Your task to perform on an android device: Search for flights from Boston to Zurich Image 0: 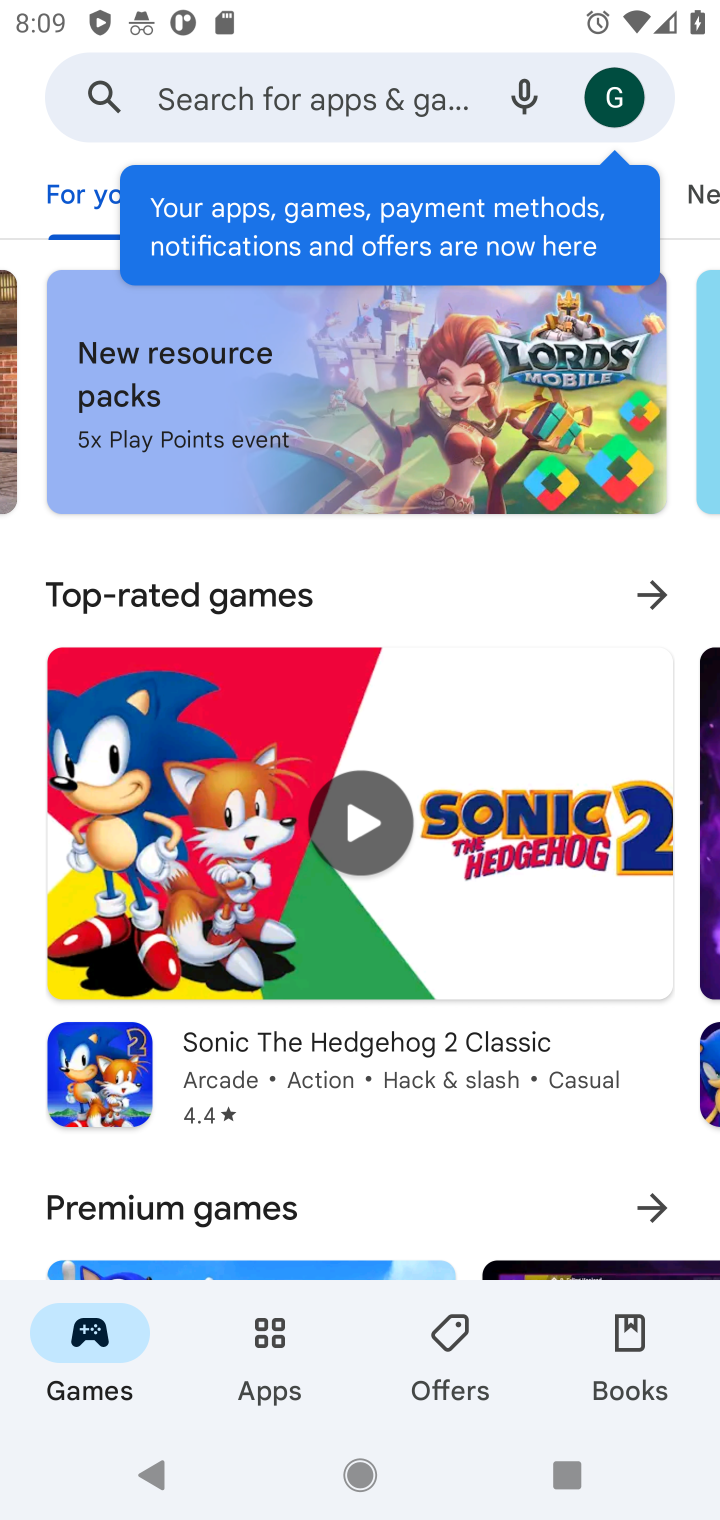
Step 0: press home button
Your task to perform on an android device: Search for flights from Boston to Zurich Image 1: 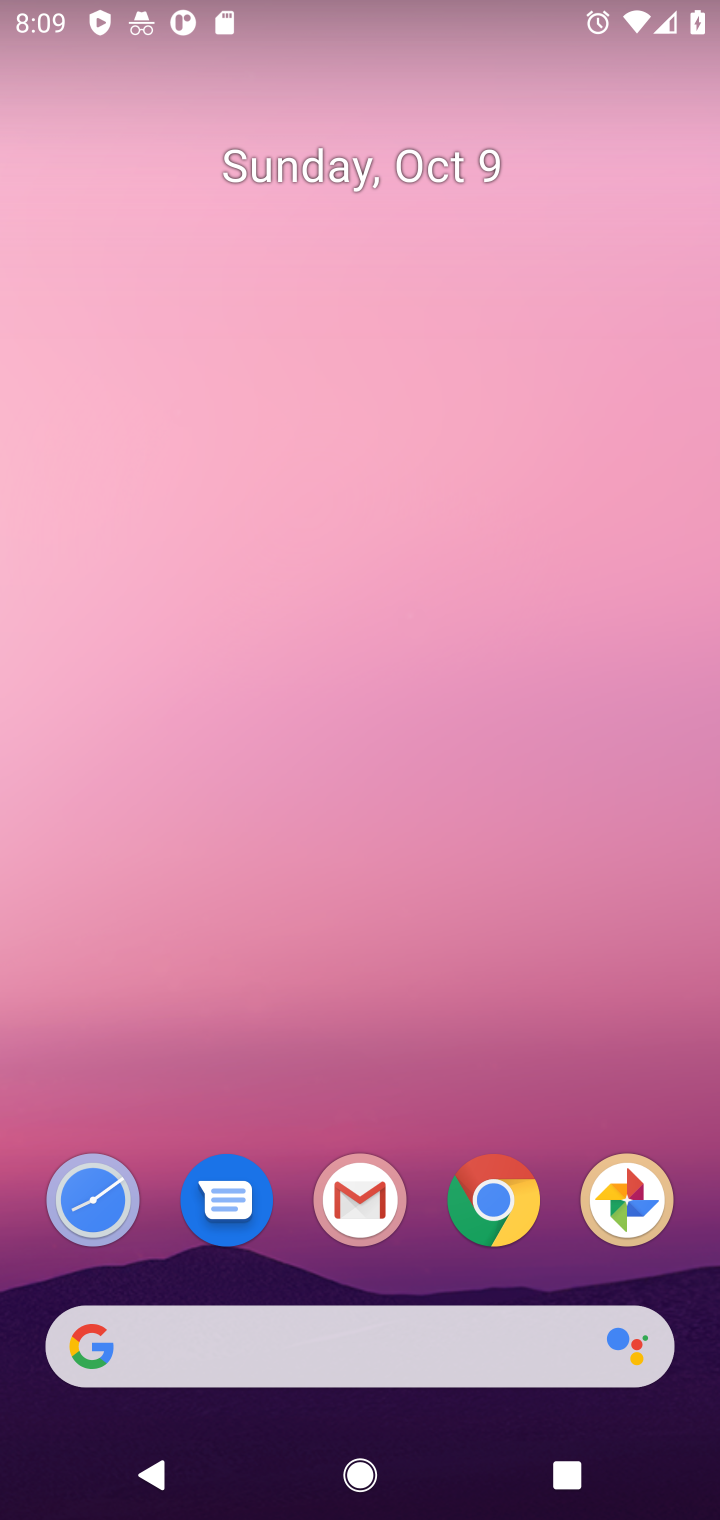
Step 1: click (482, 1205)
Your task to perform on an android device: Search for flights from Boston to Zurich Image 2: 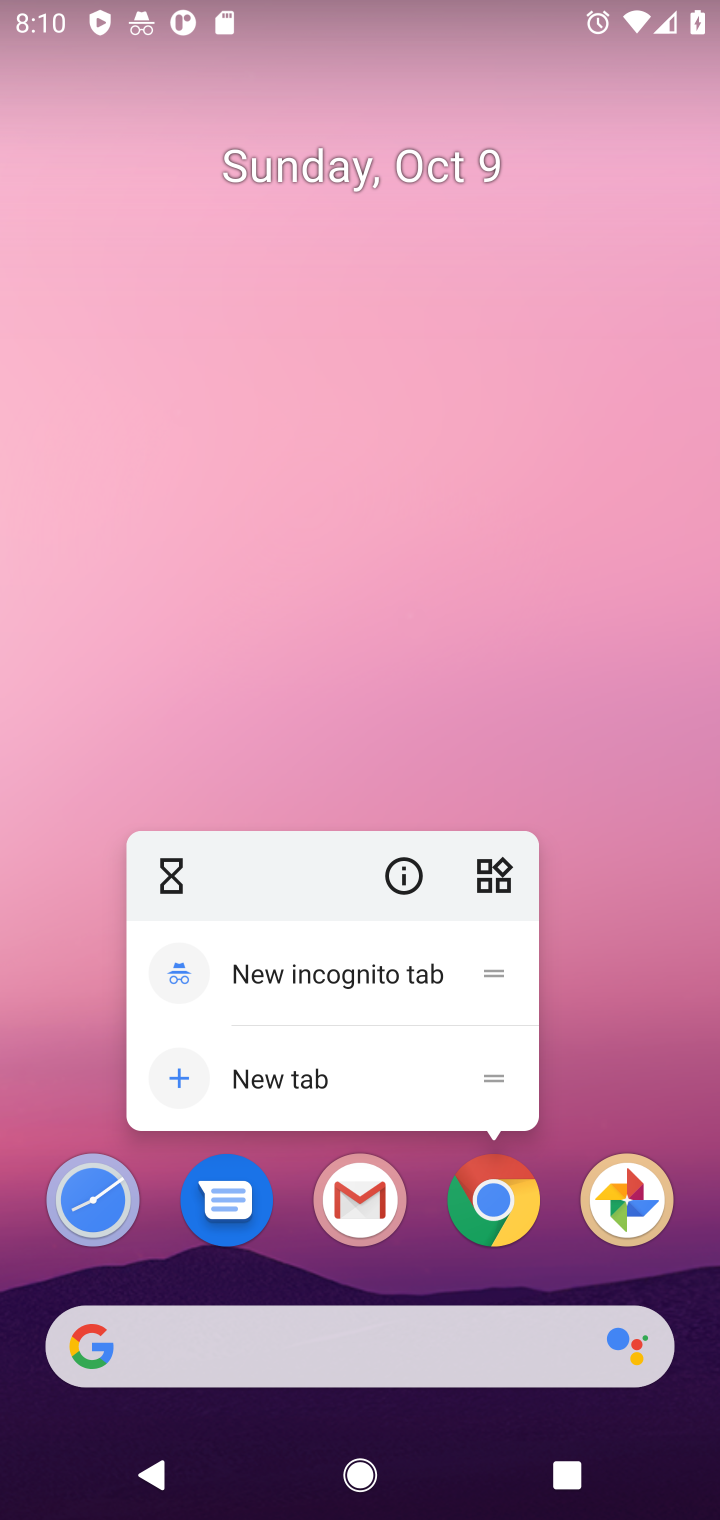
Step 2: click (500, 1209)
Your task to perform on an android device: Search for flights from Boston to Zurich Image 3: 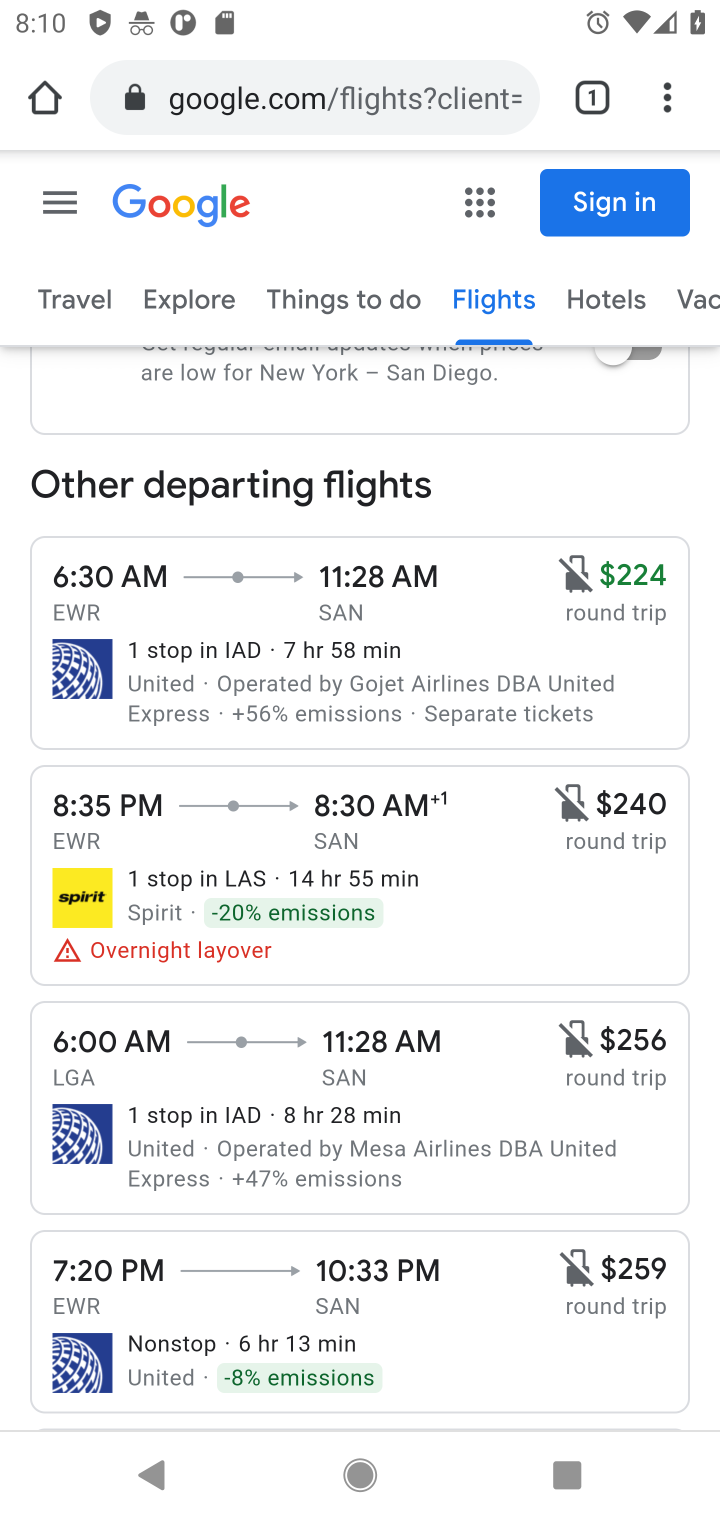
Step 3: click (354, 98)
Your task to perform on an android device: Search for flights from Boston to Zurich Image 4: 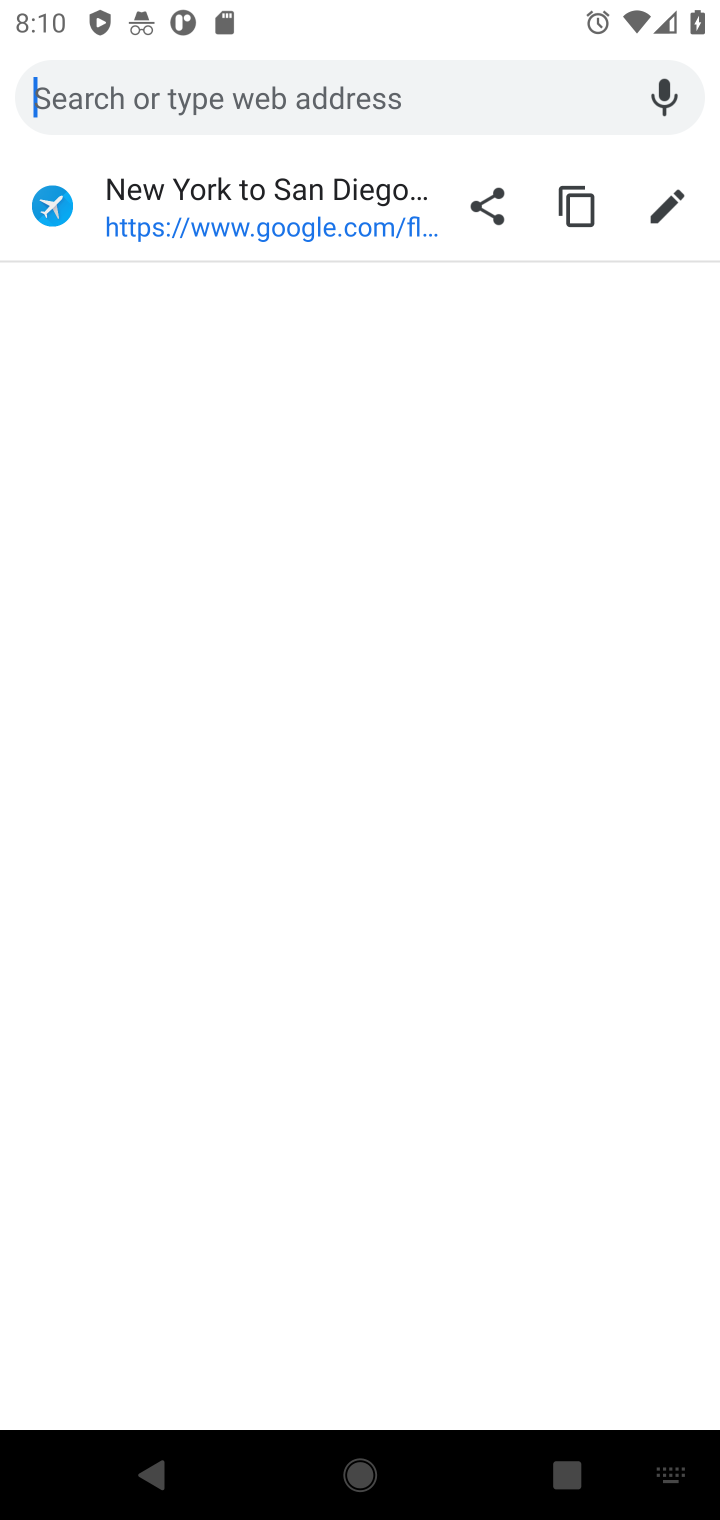
Step 4: type "flights from Boston to Zurich"
Your task to perform on an android device: Search for flights from Boston to Zurich Image 5: 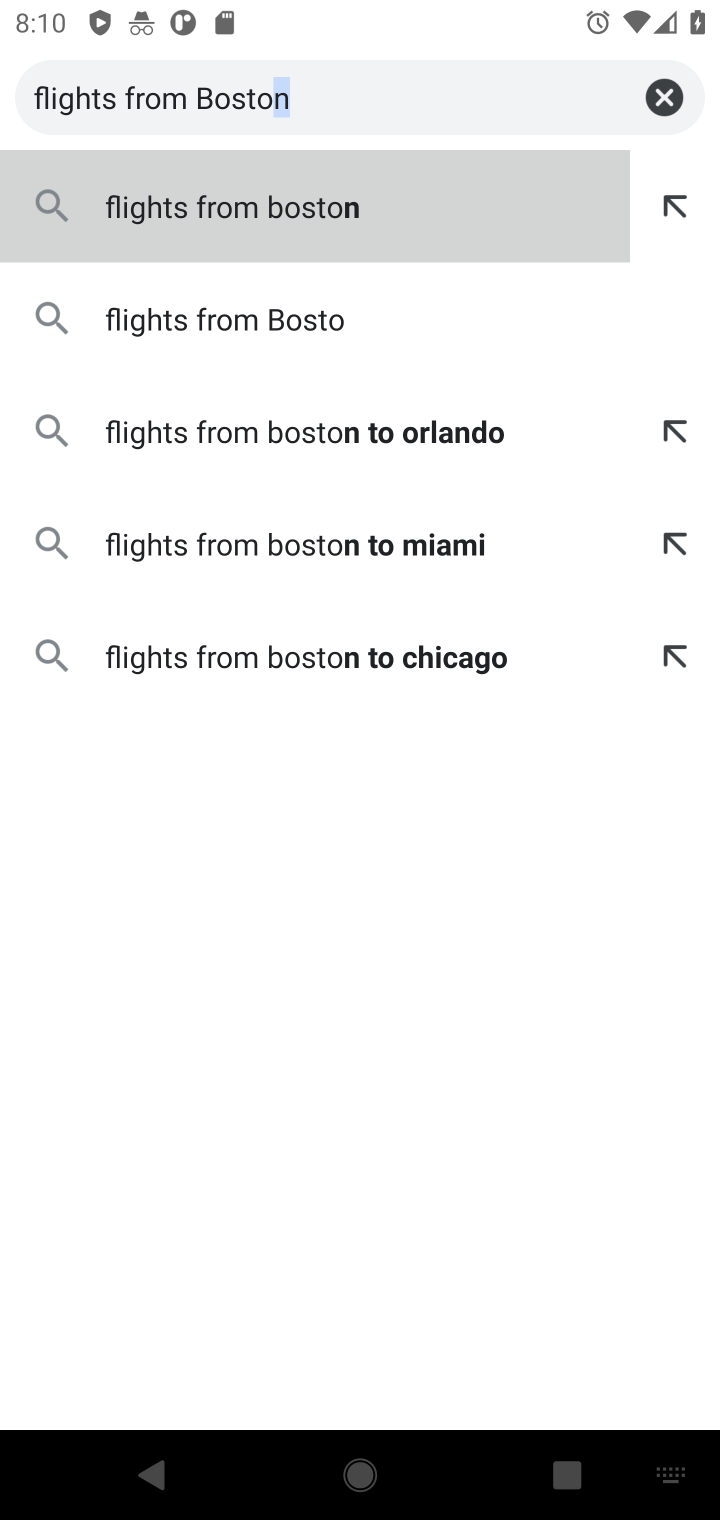
Step 5: type ""
Your task to perform on an android device: Search for flights from Boston to Zurich Image 6: 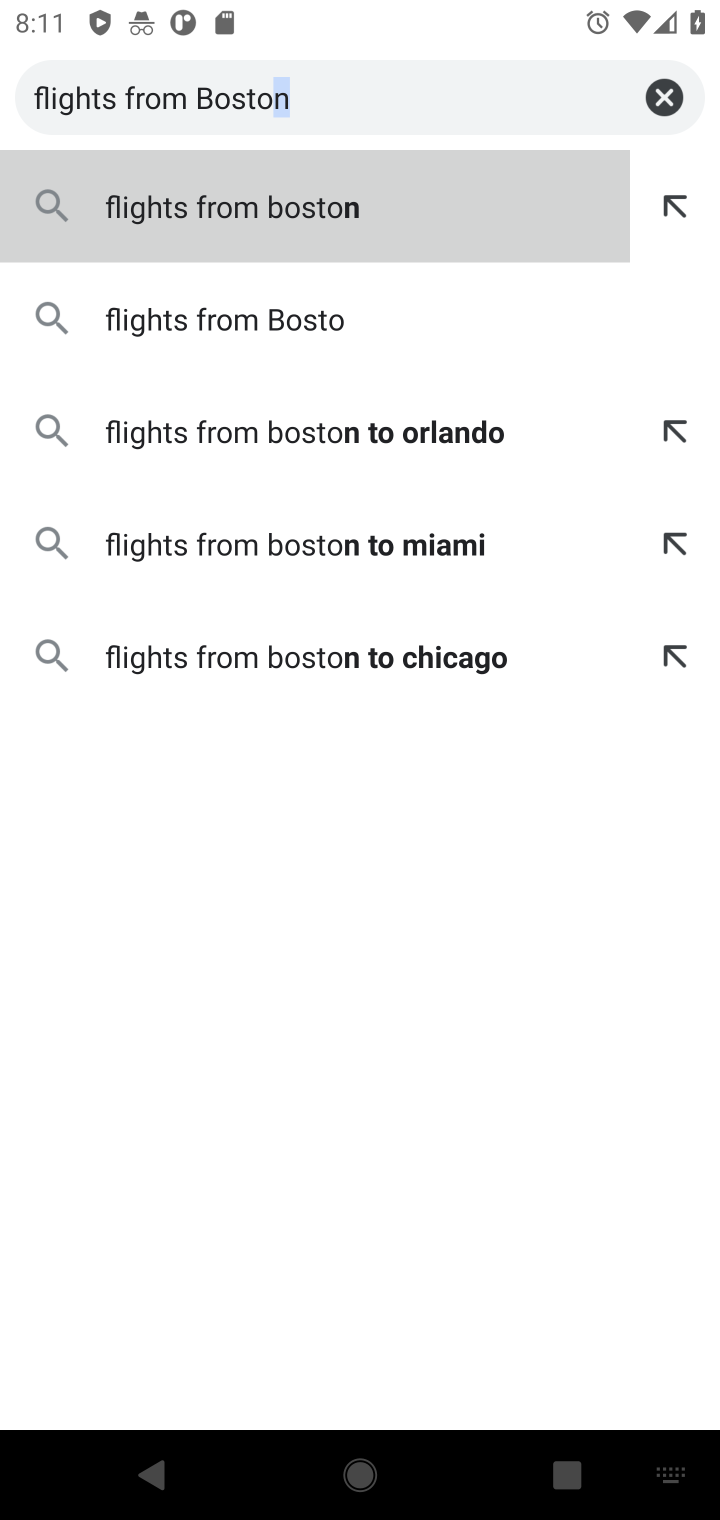
Step 6: type " to zurich"
Your task to perform on an android device: Search for flights from Boston to Zurich Image 7: 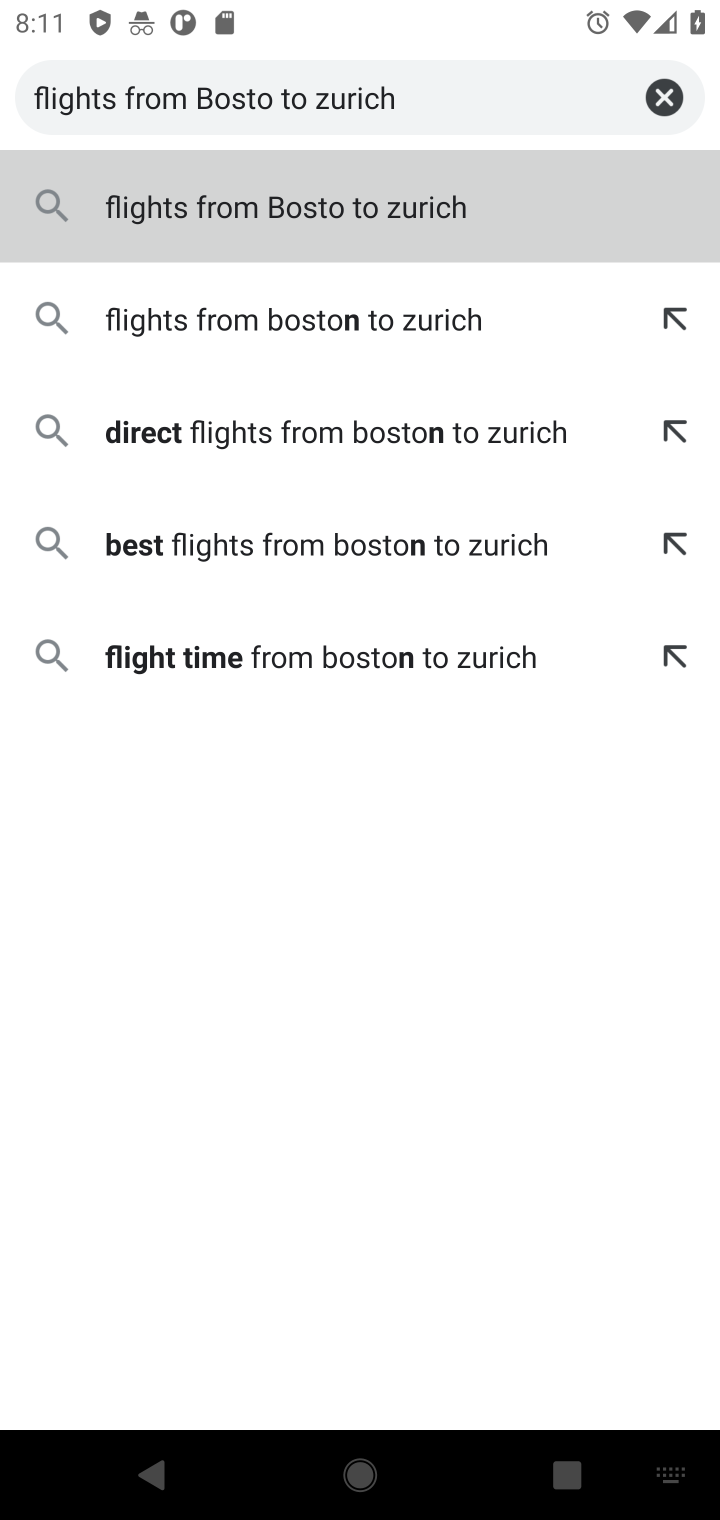
Step 7: click (331, 207)
Your task to perform on an android device: Search for flights from Boston to Zurich Image 8: 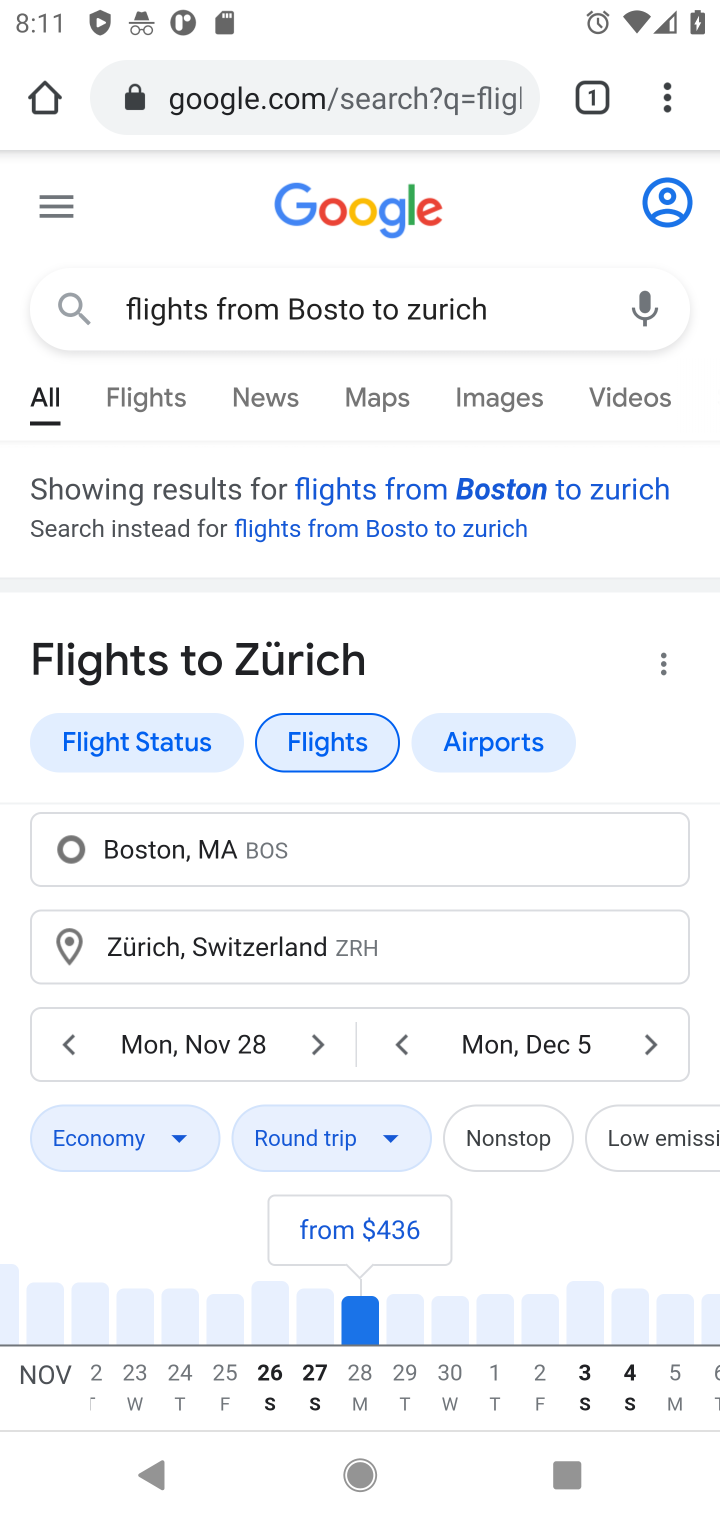
Step 8: drag from (356, 1128) to (359, 551)
Your task to perform on an android device: Search for flights from Boston to Zurich Image 9: 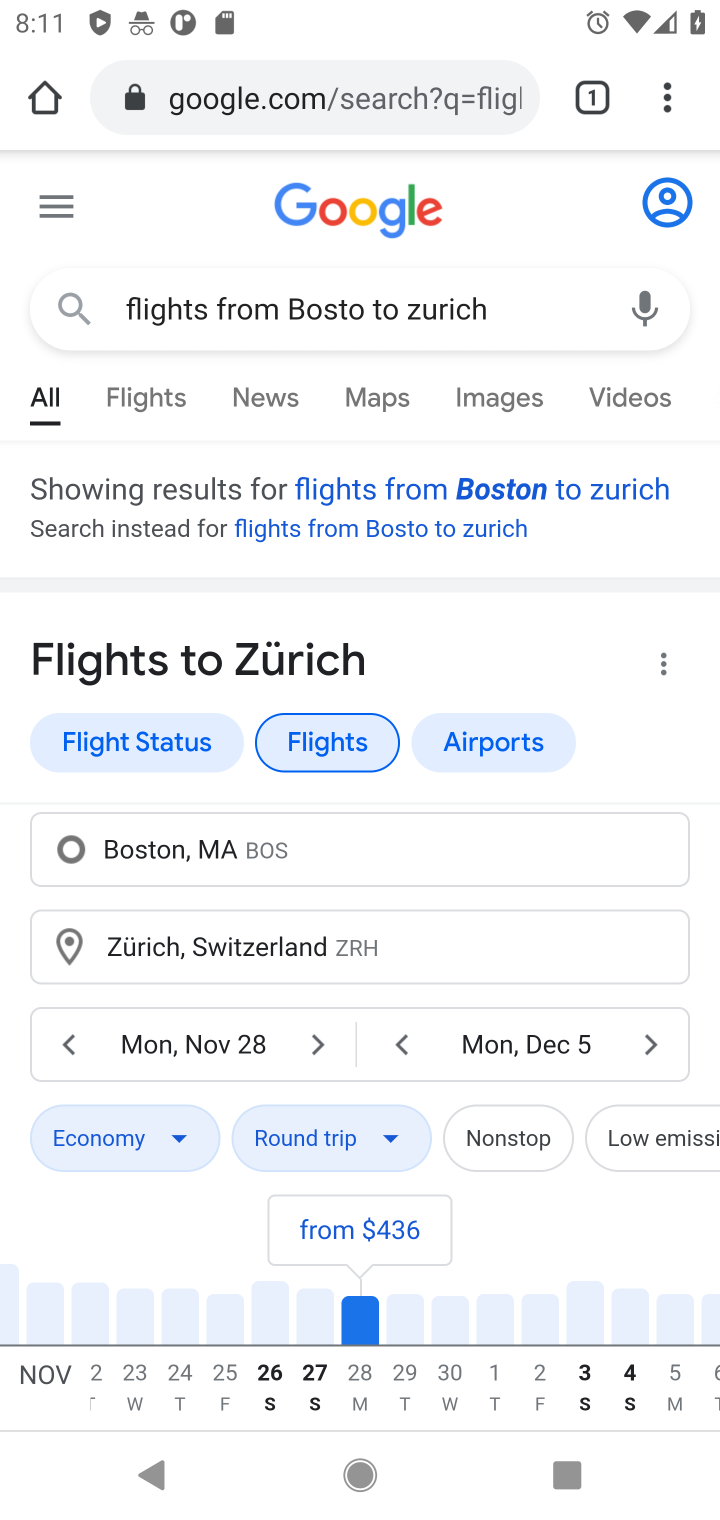
Step 9: drag from (511, 1255) to (529, 716)
Your task to perform on an android device: Search for flights from Boston to Zurich Image 10: 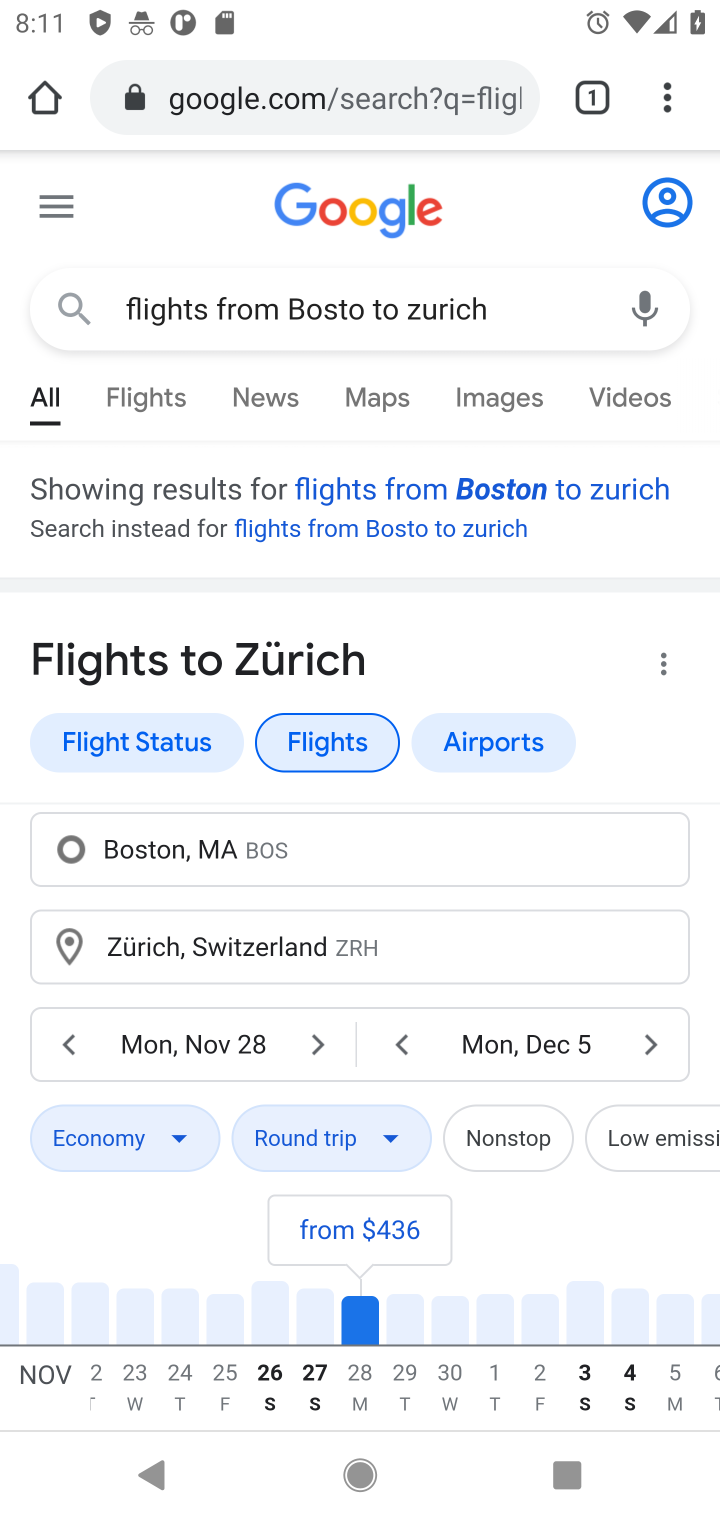
Step 10: drag from (163, 1141) to (447, 18)
Your task to perform on an android device: Search for flights from Boston to Zurich Image 11: 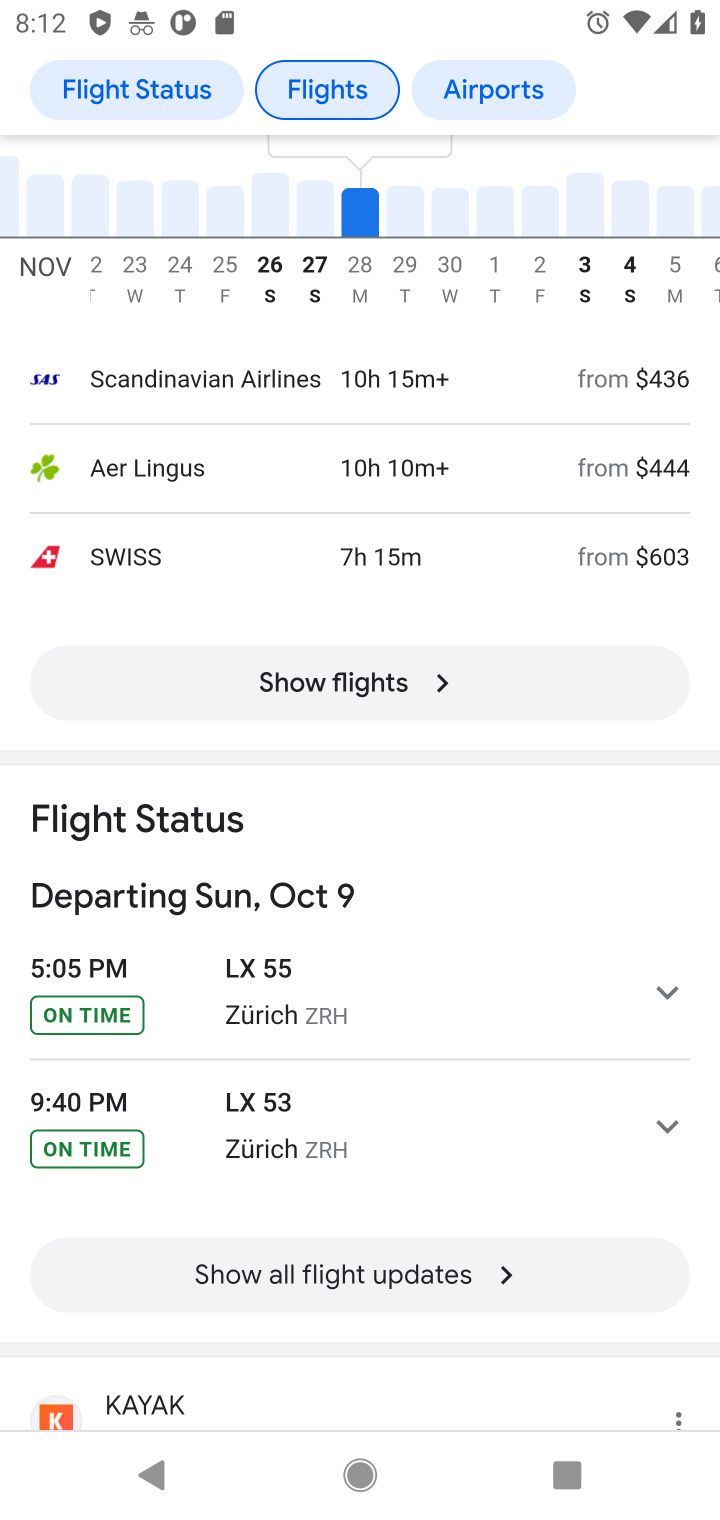
Step 11: click (376, 675)
Your task to perform on an android device: Search for flights from Boston to Zurich Image 12: 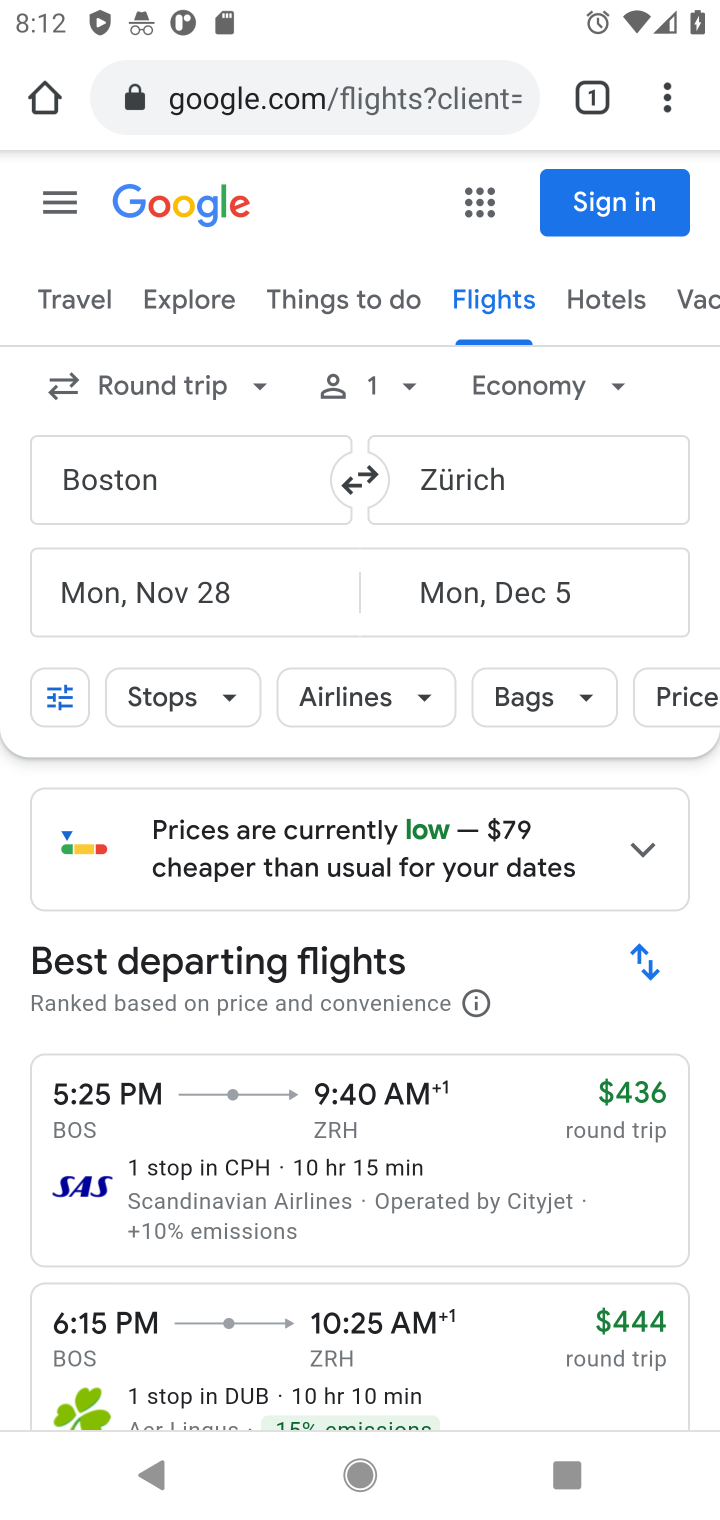
Step 12: task complete